Your task to perform on an android device: Go to wifi settings Image 0: 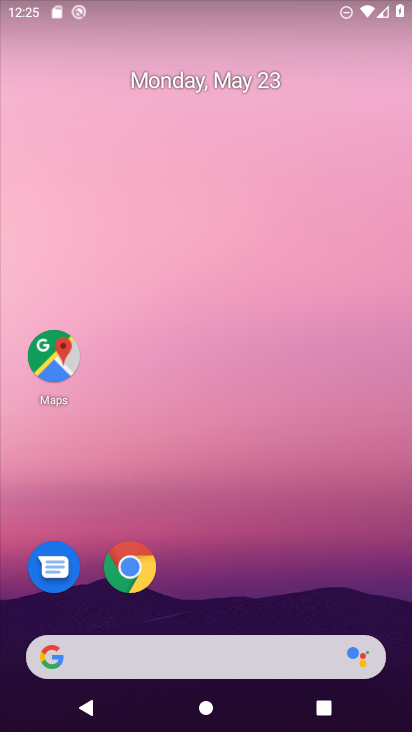
Step 0: drag from (160, 3) to (153, 537)
Your task to perform on an android device: Go to wifi settings Image 1: 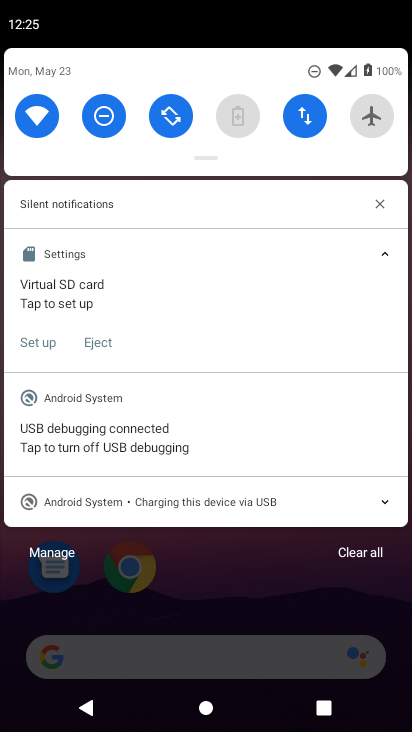
Step 1: click (52, 114)
Your task to perform on an android device: Go to wifi settings Image 2: 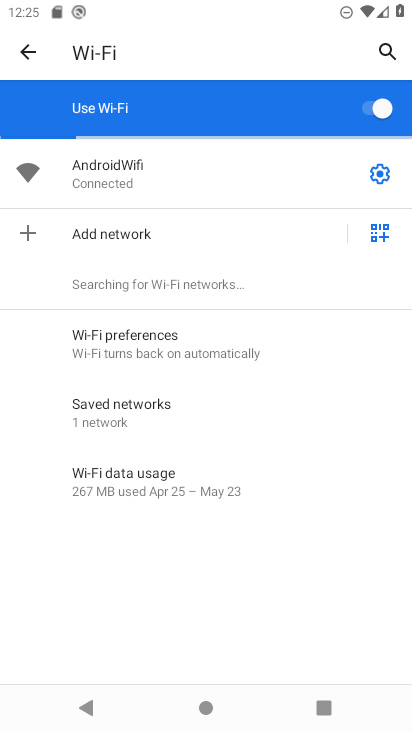
Step 2: task complete